Your task to perform on an android device: What is the capital of Brazil? Image 0: 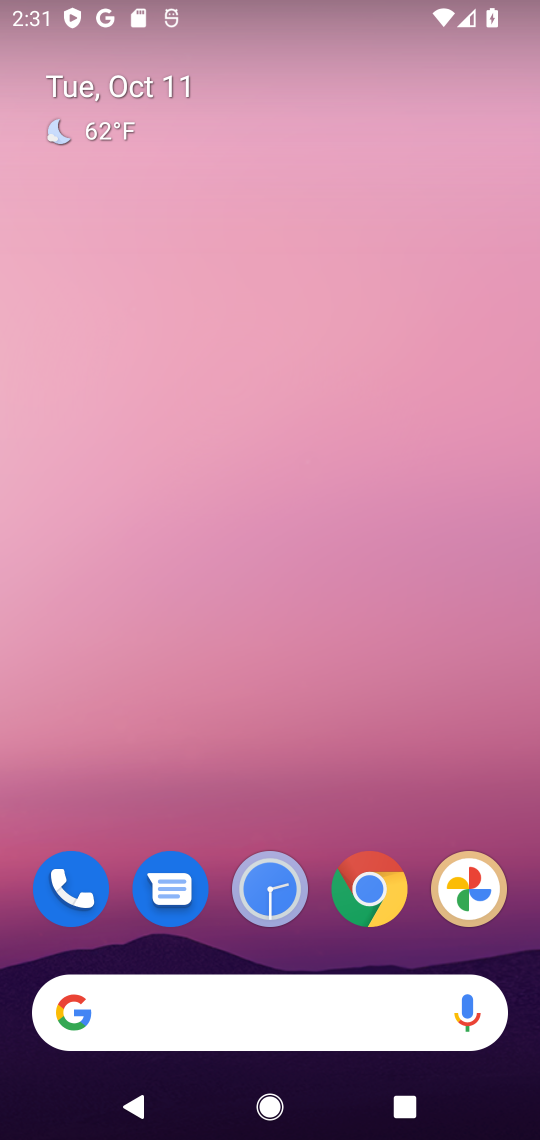
Step 0: drag from (267, 954) to (297, 272)
Your task to perform on an android device: What is the capital of Brazil? Image 1: 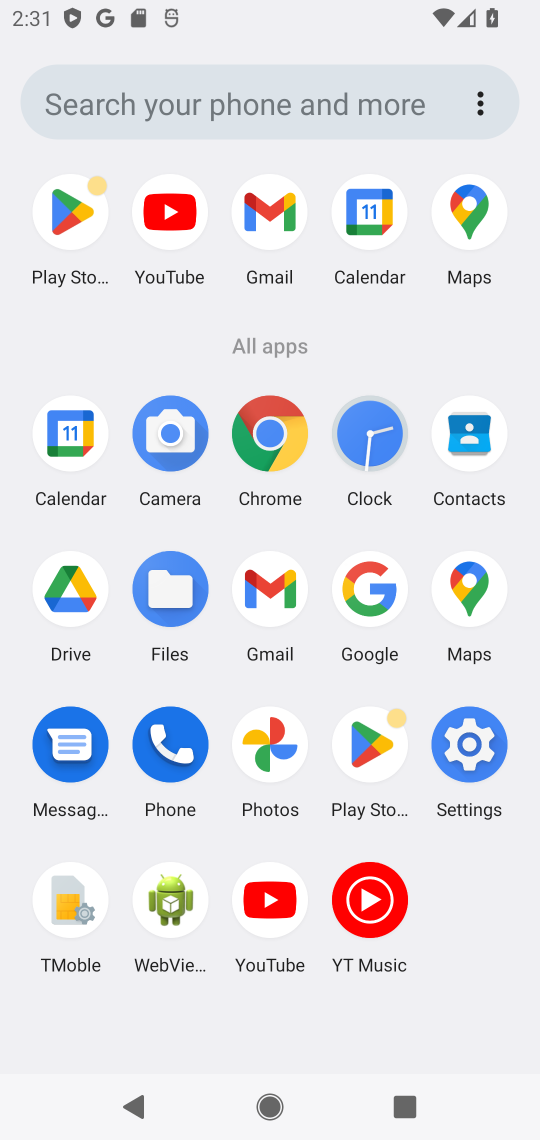
Step 1: click (356, 586)
Your task to perform on an android device: What is the capital of Brazil? Image 2: 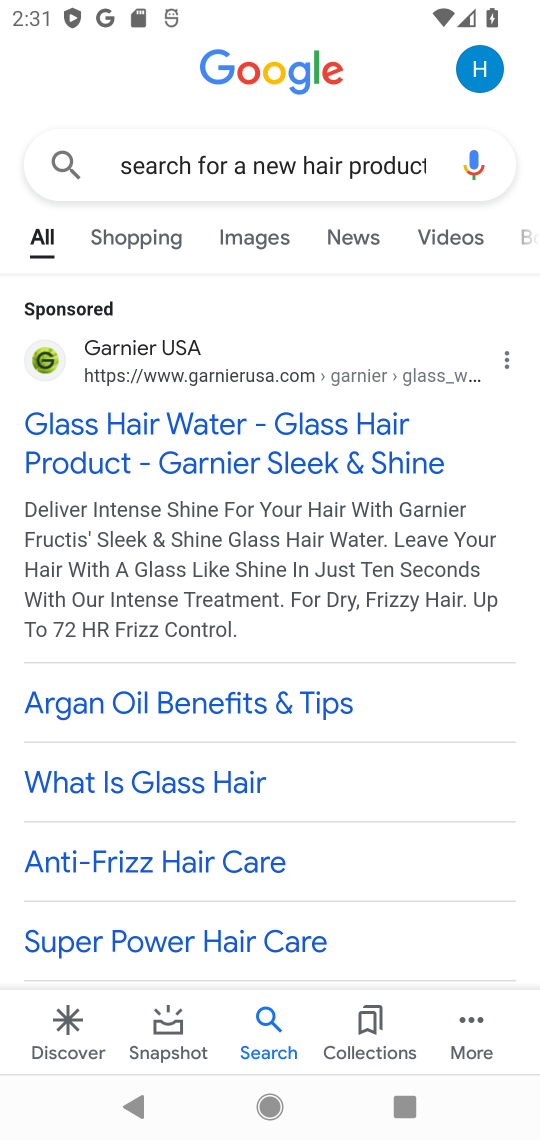
Step 2: click (309, 159)
Your task to perform on an android device: What is the capital of Brazil? Image 3: 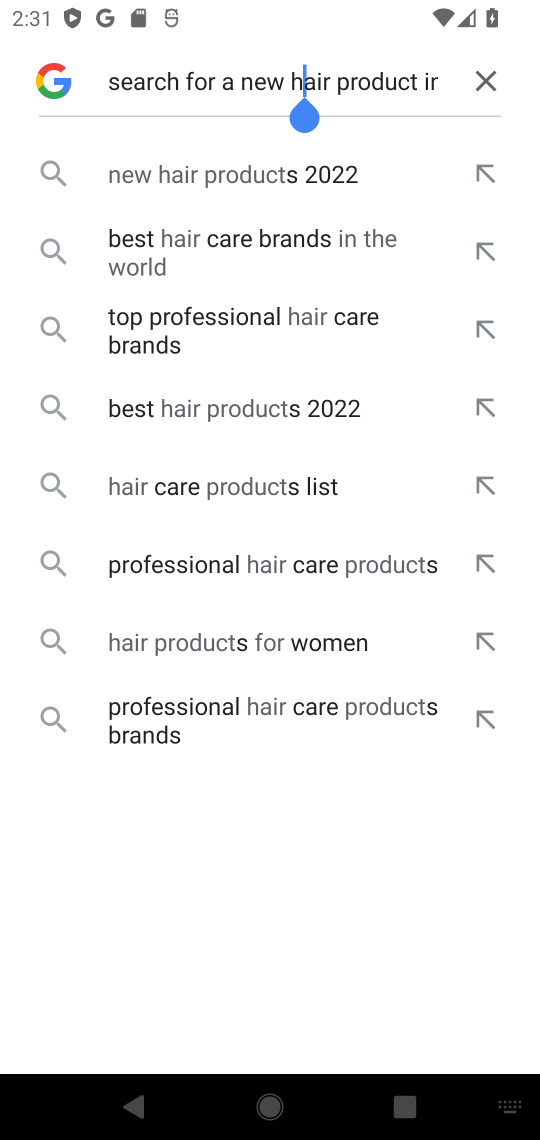
Step 3: click (474, 73)
Your task to perform on an android device: What is the capital of Brazil? Image 4: 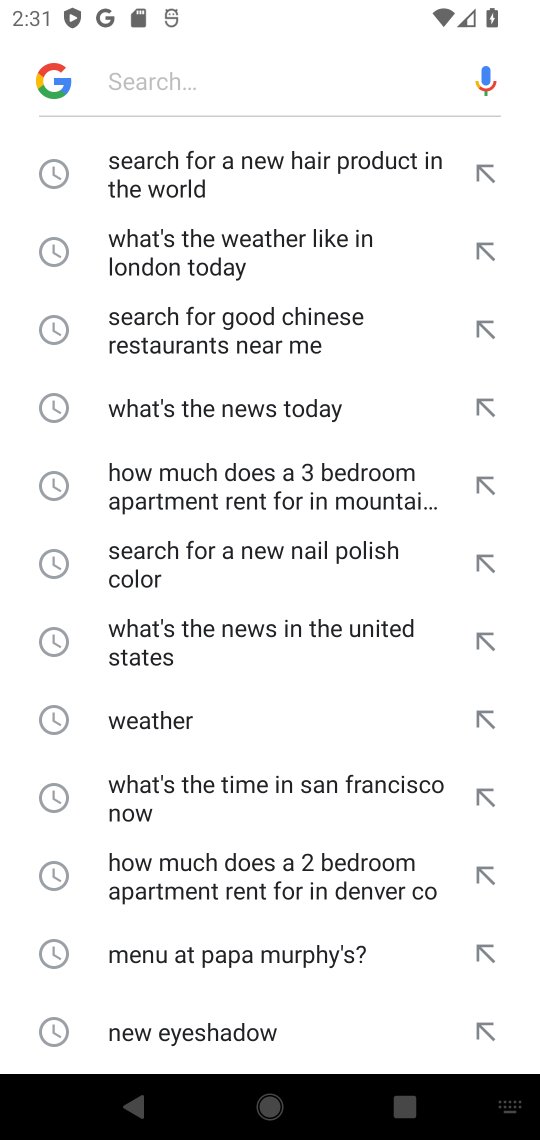
Step 4: click (195, 76)
Your task to perform on an android device: What is the capital of Brazil? Image 5: 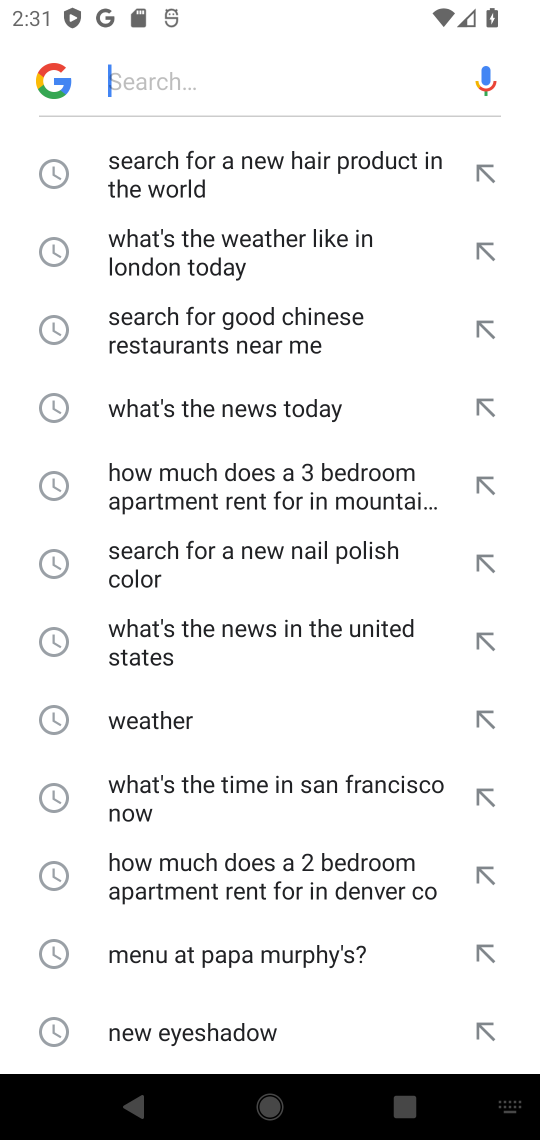
Step 5: type "What is the capital of Brazil? "
Your task to perform on an android device: What is the capital of Brazil? Image 6: 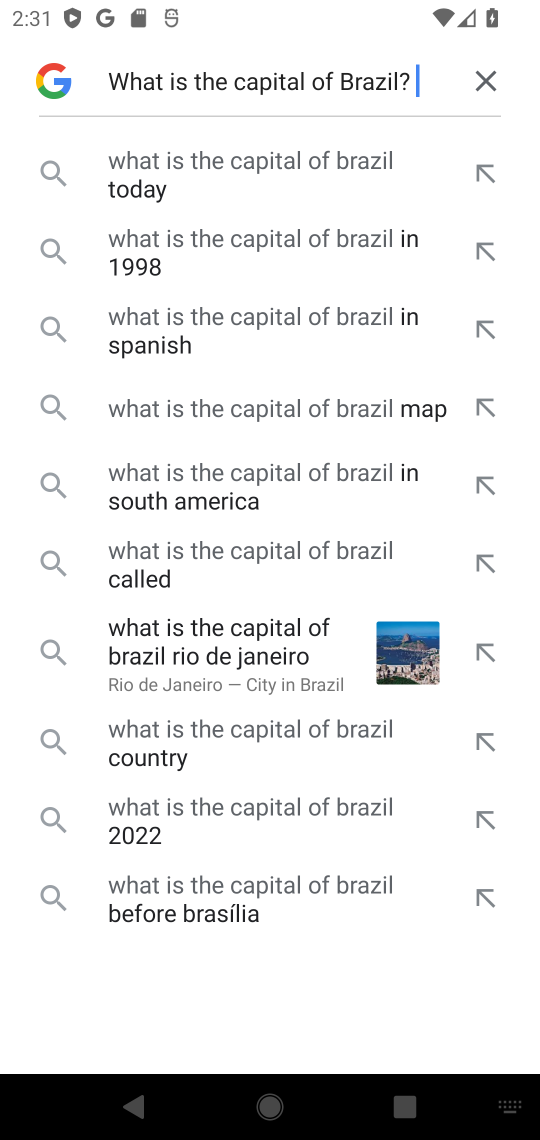
Step 6: click (245, 172)
Your task to perform on an android device: What is the capital of Brazil? Image 7: 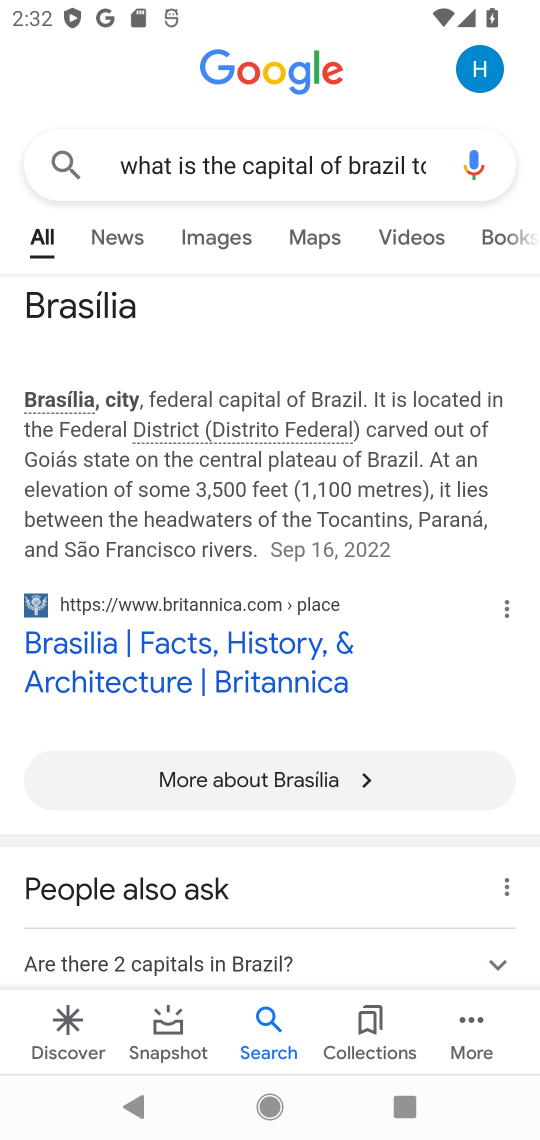
Step 7: task complete